Your task to perform on an android device: Go to Google Image 0: 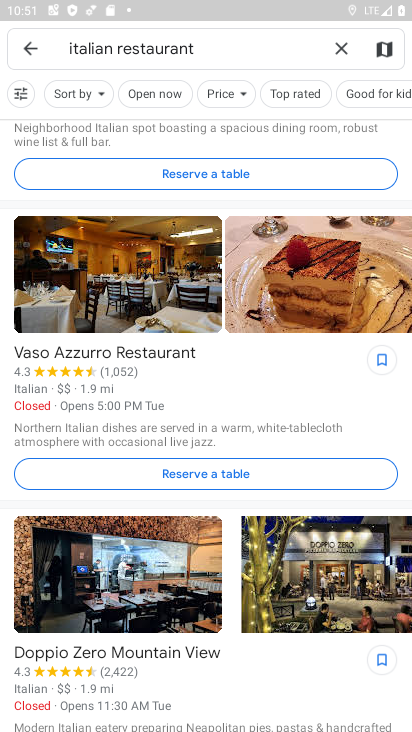
Step 0: press home button
Your task to perform on an android device: Go to Google Image 1: 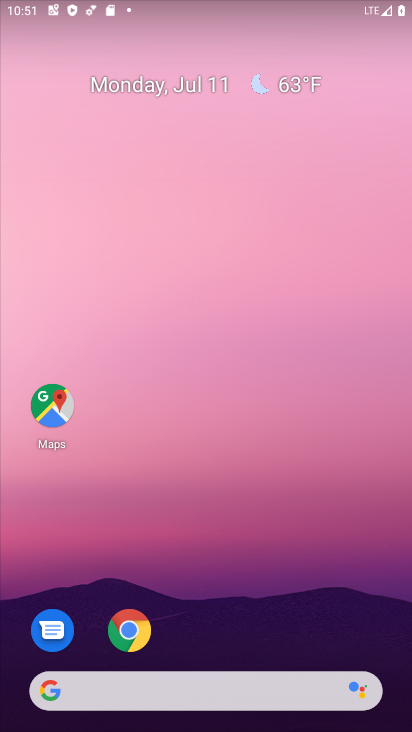
Step 1: click (128, 630)
Your task to perform on an android device: Go to Google Image 2: 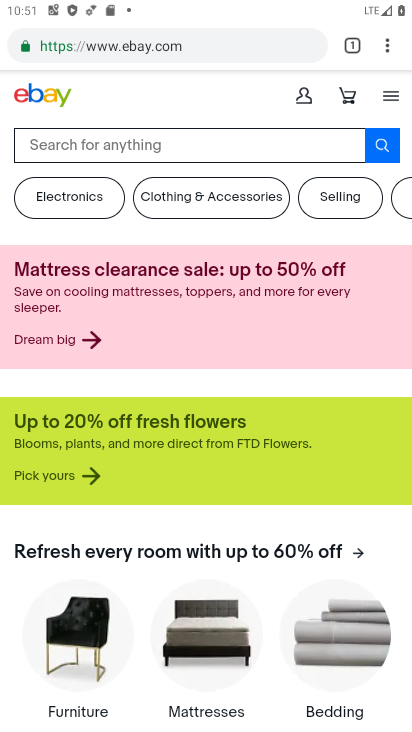
Step 2: task complete